Your task to perform on an android device: stop showing notifications on the lock screen Image 0: 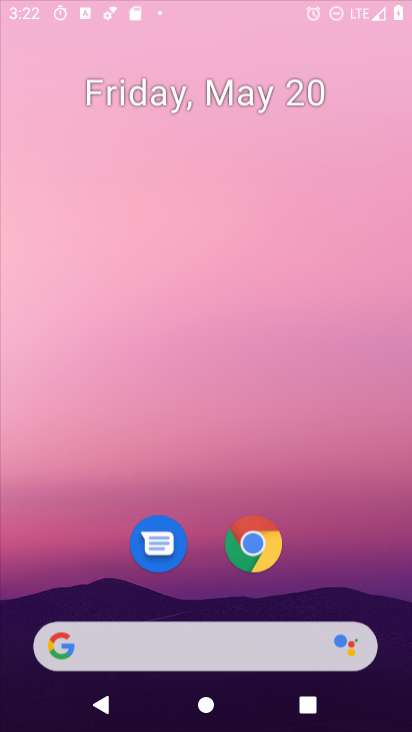
Step 0: drag from (214, 195) to (242, 0)
Your task to perform on an android device: stop showing notifications on the lock screen Image 1: 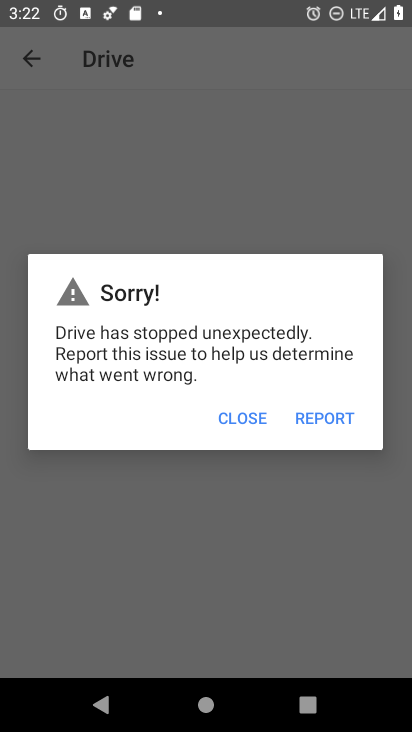
Step 1: press home button
Your task to perform on an android device: stop showing notifications on the lock screen Image 2: 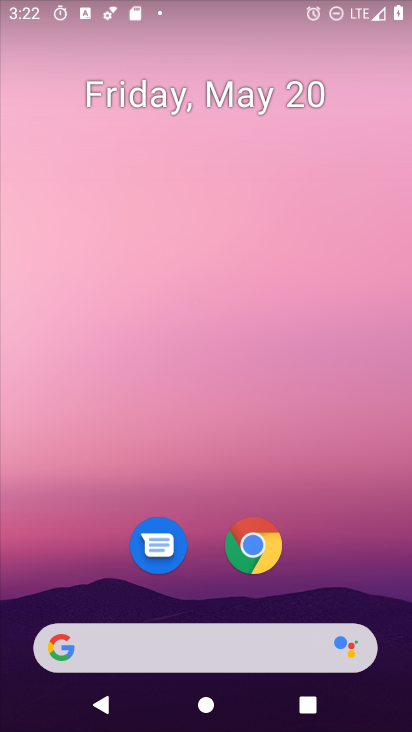
Step 2: drag from (222, 609) to (212, 74)
Your task to perform on an android device: stop showing notifications on the lock screen Image 3: 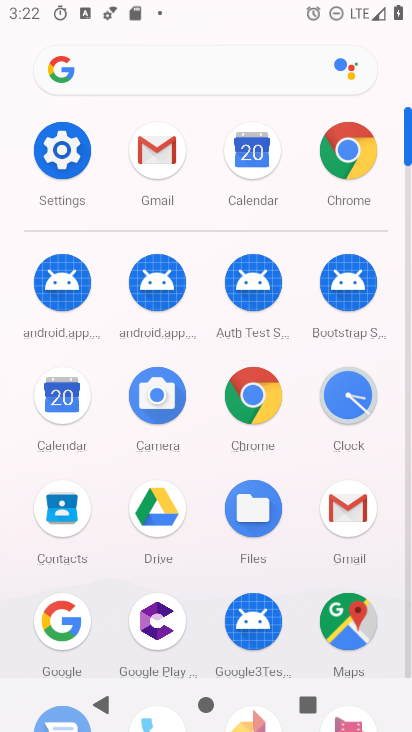
Step 3: click (57, 154)
Your task to perform on an android device: stop showing notifications on the lock screen Image 4: 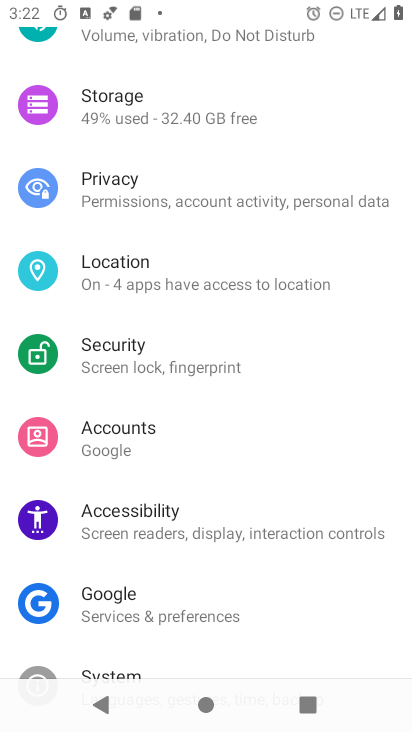
Step 4: drag from (166, 191) to (252, 673)
Your task to perform on an android device: stop showing notifications on the lock screen Image 5: 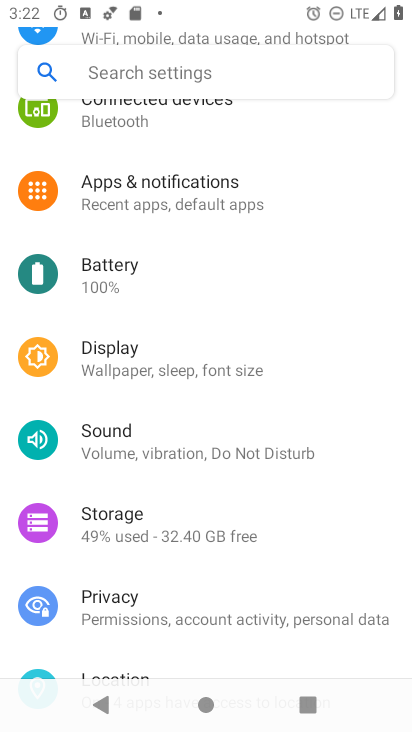
Step 5: drag from (241, 298) to (267, 640)
Your task to perform on an android device: stop showing notifications on the lock screen Image 6: 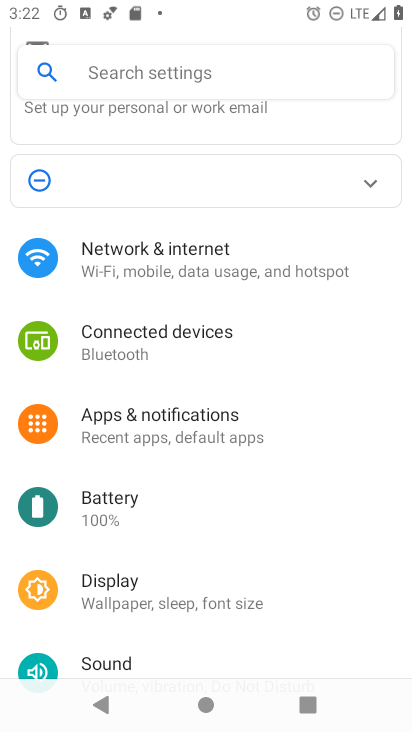
Step 6: click (209, 410)
Your task to perform on an android device: stop showing notifications on the lock screen Image 7: 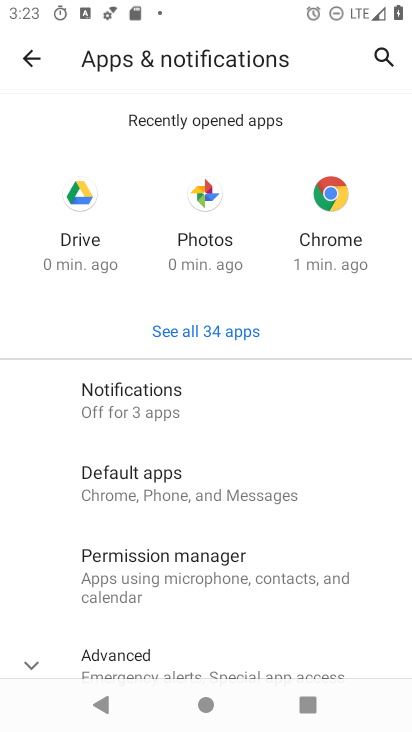
Step 7: drag from (115, 644) to (193, 99)
Your task to perform on an android device: stop showing notifications on the lock screen Image 8: 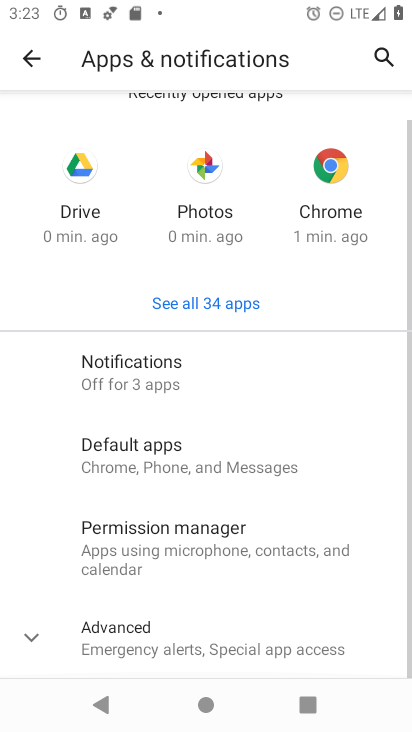
Step 8: click (207, 349)
Your task to perform on an android device: stop showing notifications on the lock screen Image 9: 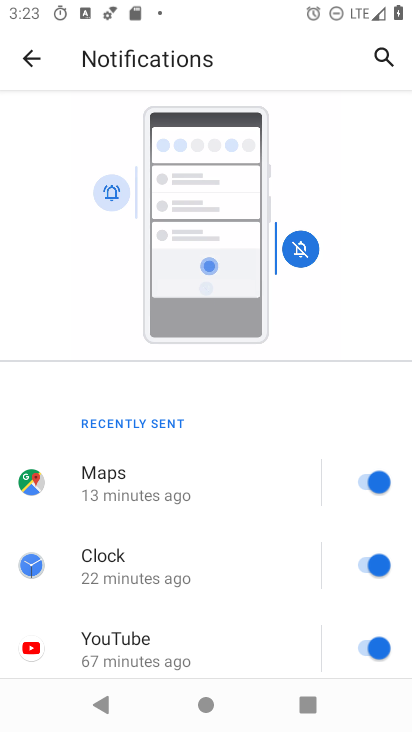
Step 9: drag from (219, 652) to (275, 6)
Your task to perform on an android device: stop showing notifications on the lock screen Image 10: 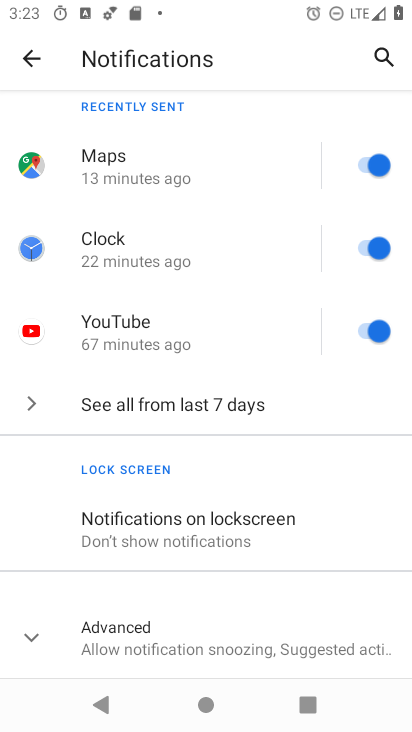
Step 10: drag from (285, 621) to (316, 63)
Your task to perform on an android device: stop showing notifications on the lock screen Image 11: 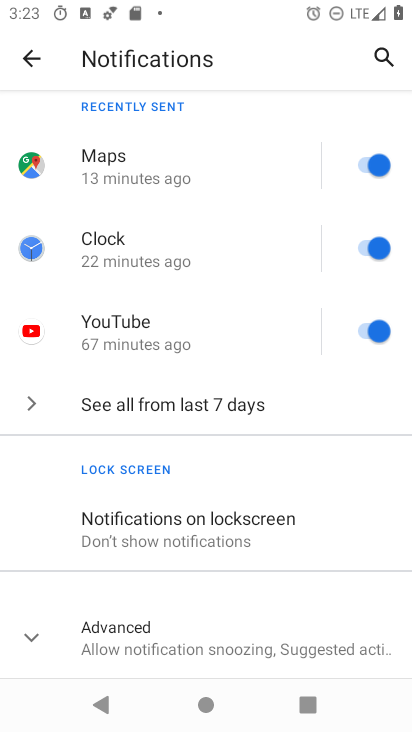
Step 11: click (232, 534)
Your task to perform on an android device: stop showing notifications on the lock screen Image 12: 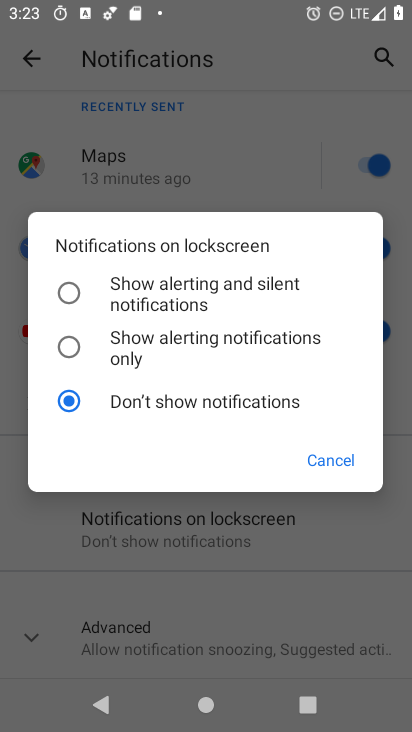
Step 12: task complete